Your task to perform on an android device: move an email to a new category in the gmail app Image 0: 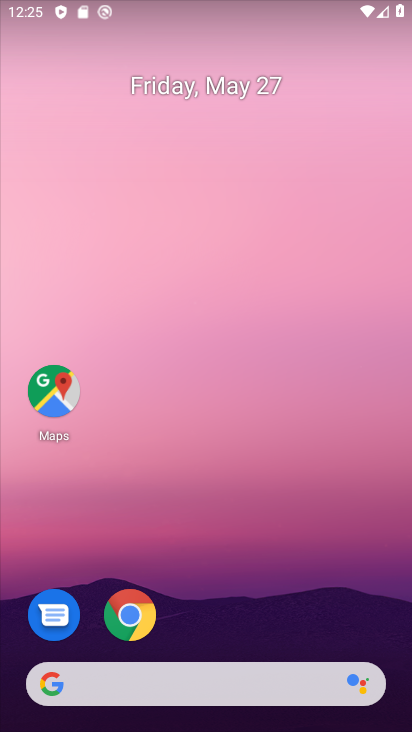
Step 0: drag from (230, 563) to (262, 82)
Your task to perform on an android device: move an email to a new category in the gmail app Image 1: 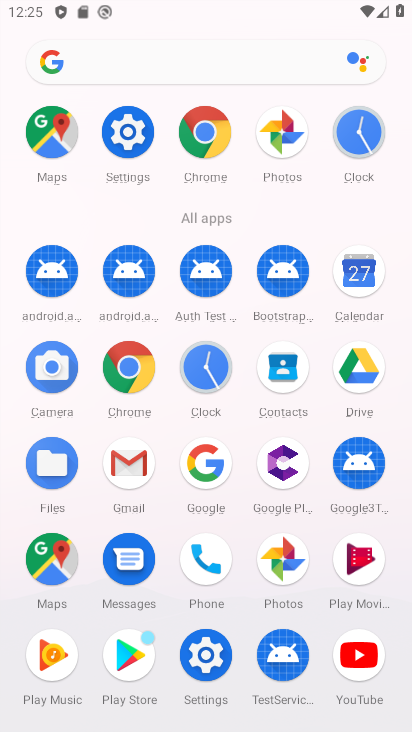
Step 1: click (137, 480)
Your task to perform on an android device: move an email to a new category in the gmail app Image 2: 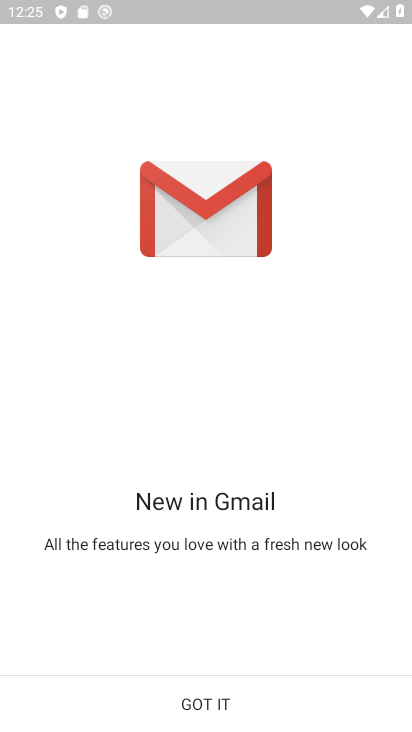
Step 2: click (210, 712)
Your task to perform on an android device: move an email to a new category in the gmail app Image 3: 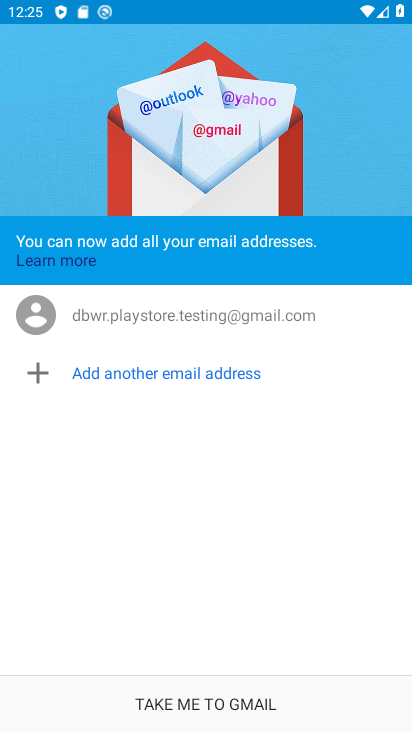
Step 3: click (210, 712)
Your task to perform on an android device: move an email to a new category in the gmail app Image 4: 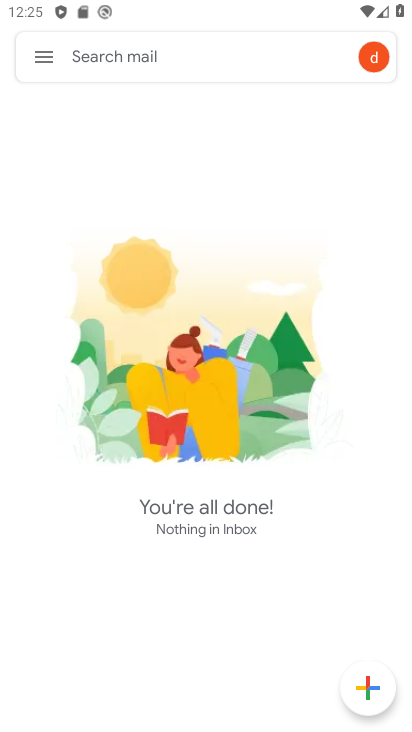
Step 4: click (42, 61)
Your task to perform on an android device: move an email to a new category in the gmail app Image 5: 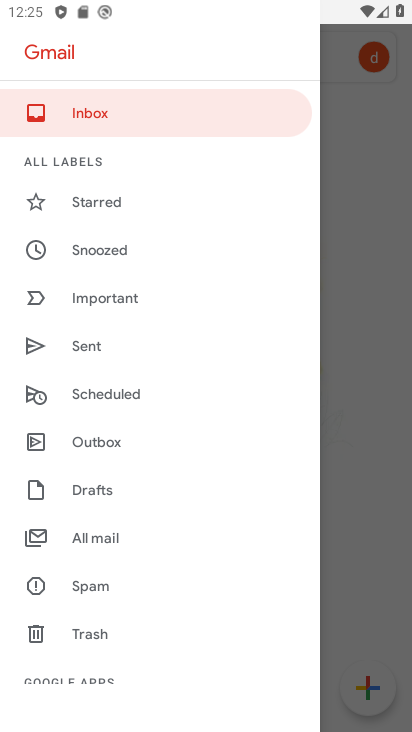
Step 5: drag from (124, 570) to (147, 271)
Your task to perform on an android device: move an email to a new category in the gmail app Image 6: 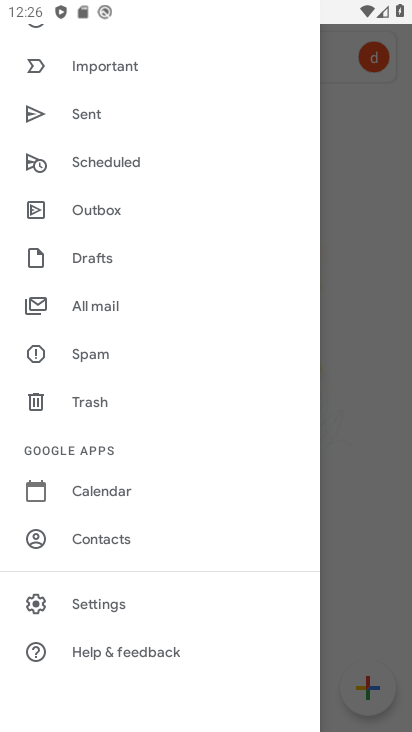
Step 6: click (124, 312)
Your task to perform on an android device: move an email to a new category in the gmail app Image 7: 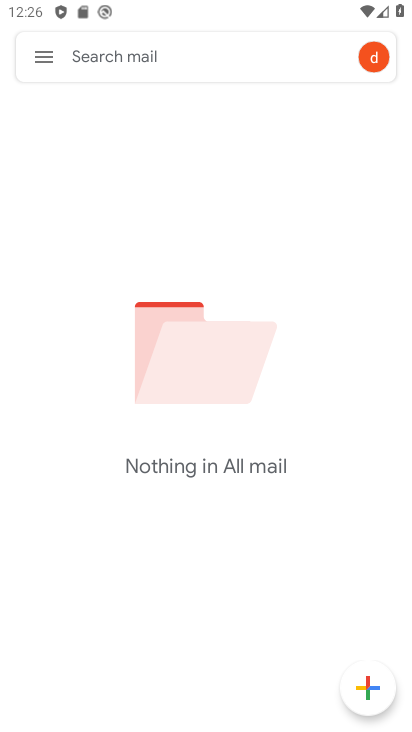
Step 7: task complete